Your task to perform on an android device: snooze an email in the gmail app Image 0: 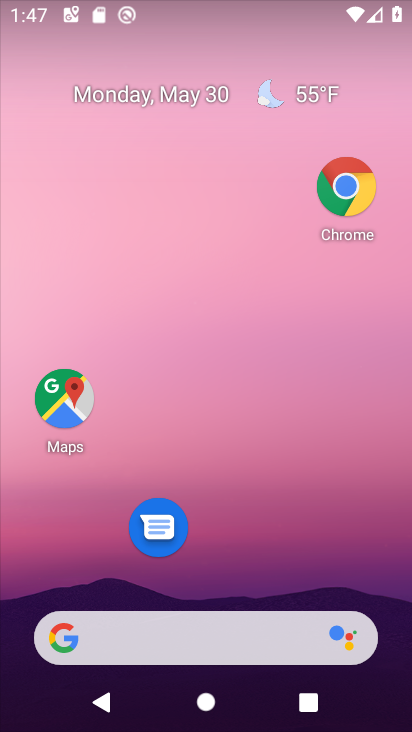
Step 0: drag from (215, 585) to (294, 71)
Your task to perform on an android device: snooze an email in the gmail app Image 1: 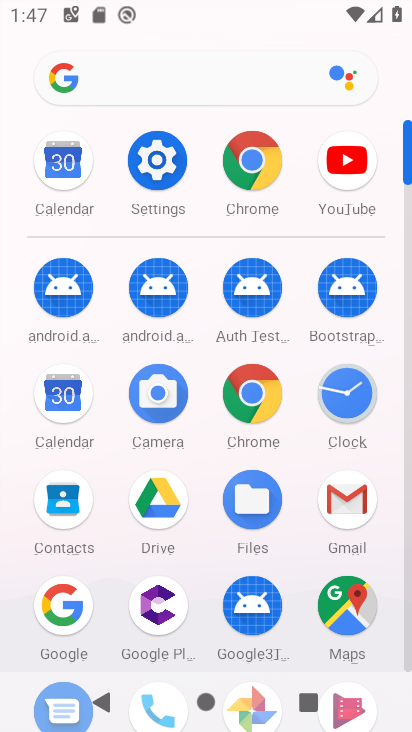
Step 1: click (354, 488)
Your task to perform on an android device: snooze an email in the gmail app Image 2: 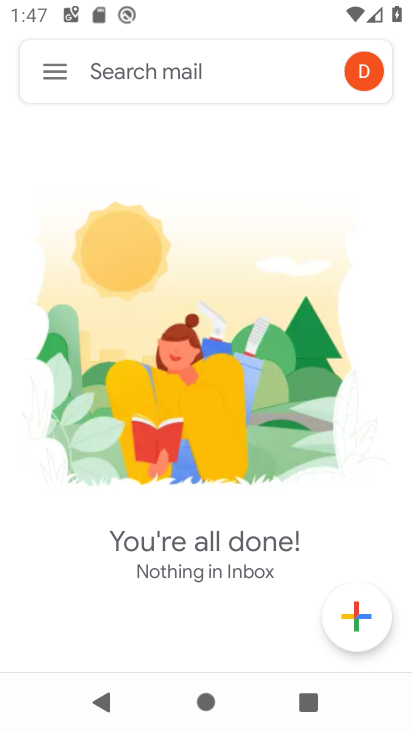
Step 2: click (55, 77)
Your task to perform on an android device: snooze an email in the gmail app Image 3: 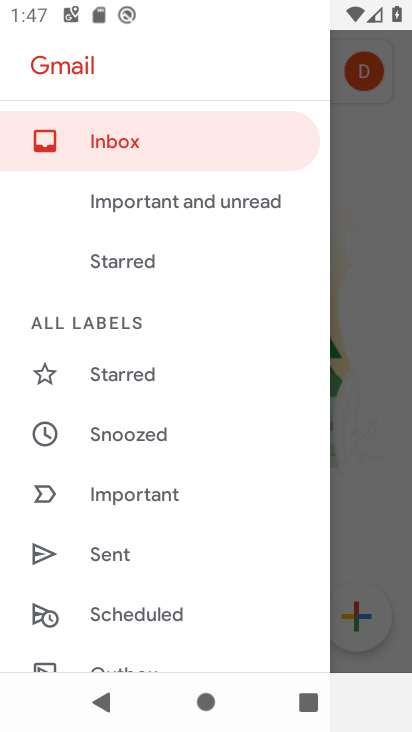
Step 3: click (148, 429)
Your task to perform on an android device: snooze an email in the gmail app Image 4: 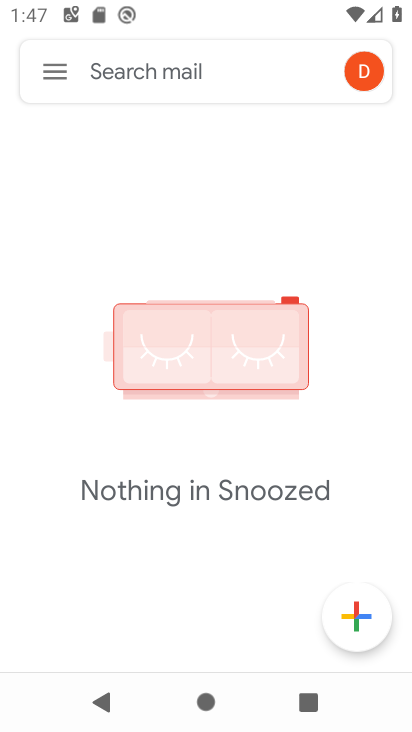
Step 4: task complete